Your task to perform on an android device: open a bookmark in the chrome app Image 0: 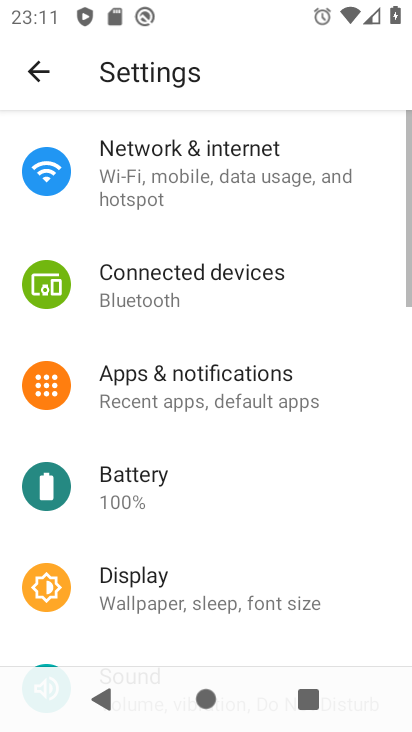
Step 0: press home button
Your task to perform on an android device: open a bookmark in the chrome app Image 1: 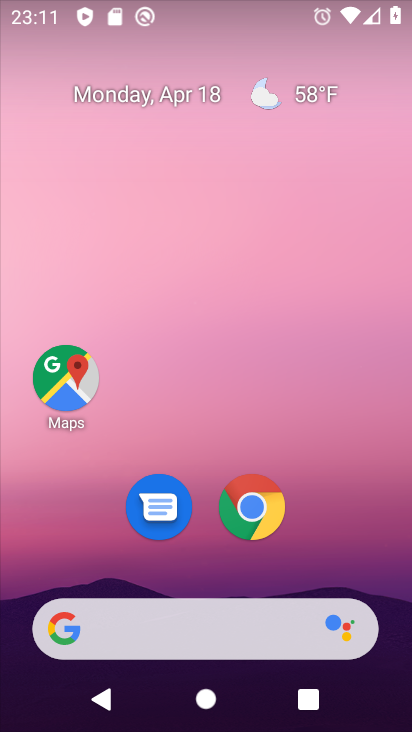
Step 1: click (278, 480)
Your task to perform on an android device: open a bookmark in the chrome app Image 2: 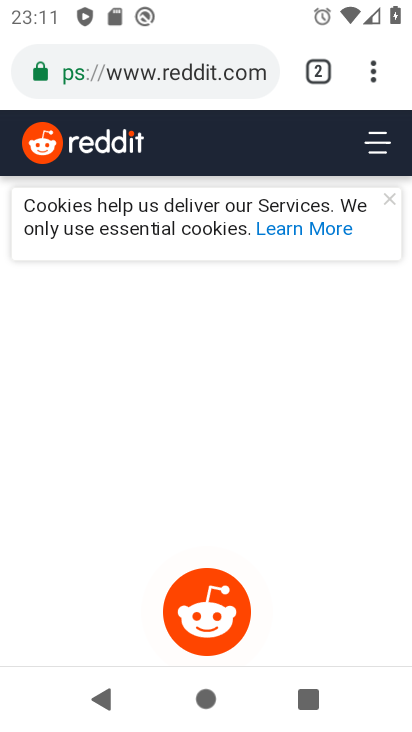
Step 2: click (373, 77)
Your task to perform on an android device: open a bookmark in the chrome app Image 3: 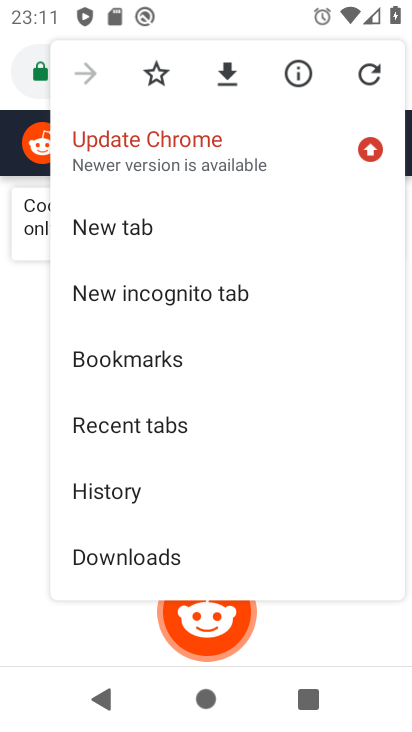
Step 3: click (141, 357)
Your task to perform on an android device: open a bookmark in the chrome app Image 4: 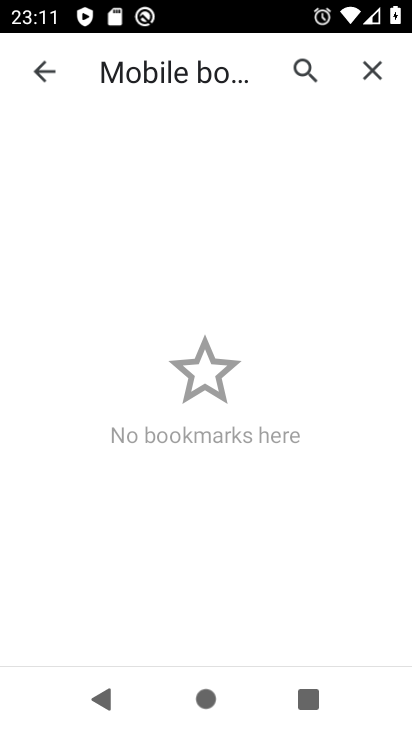
Step 4: task complete